Your task to perform on an android device: Go to network settings Image 0: 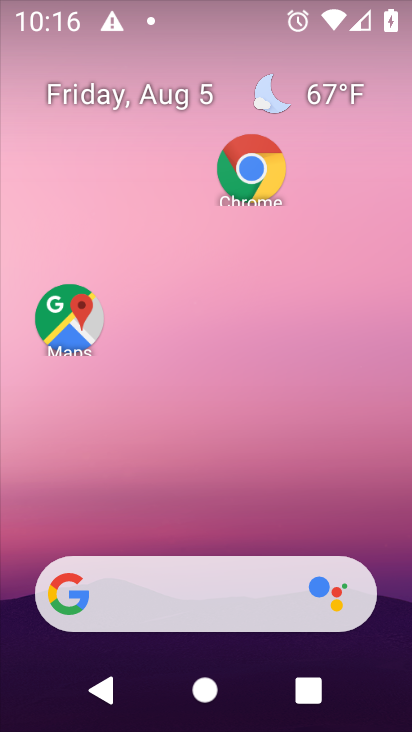
Step 0: drag from (205, 519) to (180, 111)
Your task to perform on an android device: Go to network settings Image 1: 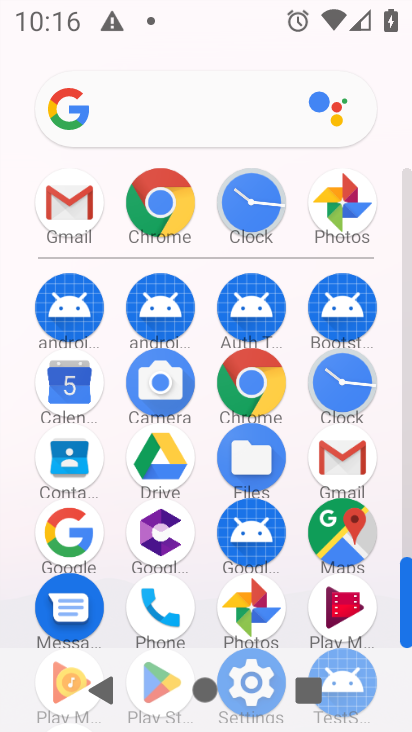
Step 1: drag from (201, 439) to (195, 265)
Your task to perform on an android device: Go to network settings Image 2: 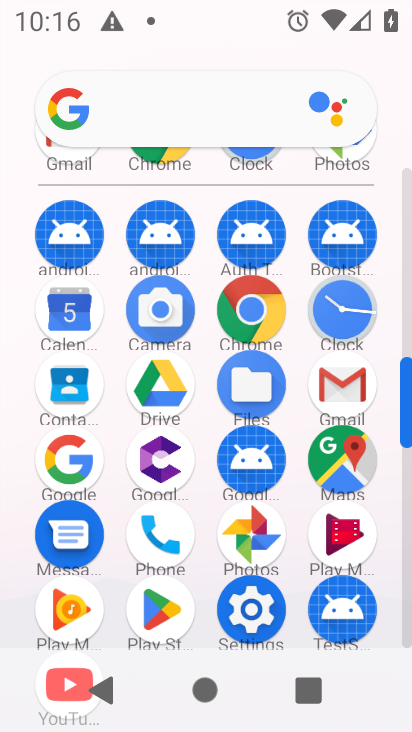
Step 2: click (267, 610)
Your task to perform on an android device: Go to network settings Image 3: 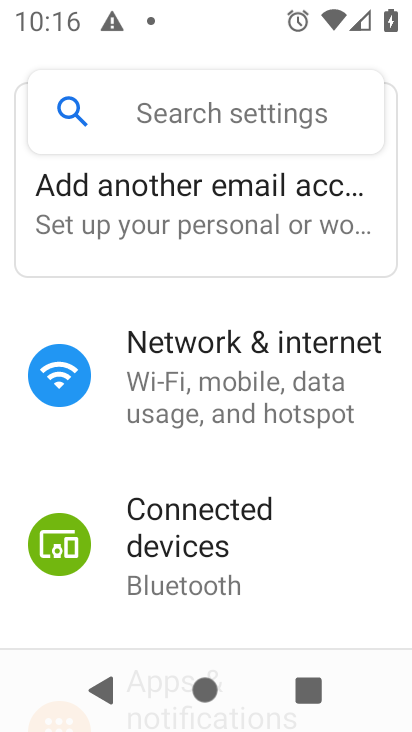
Step 3: click (226, 359)
Your task to perform on an android device: Go to network settings Image 4: 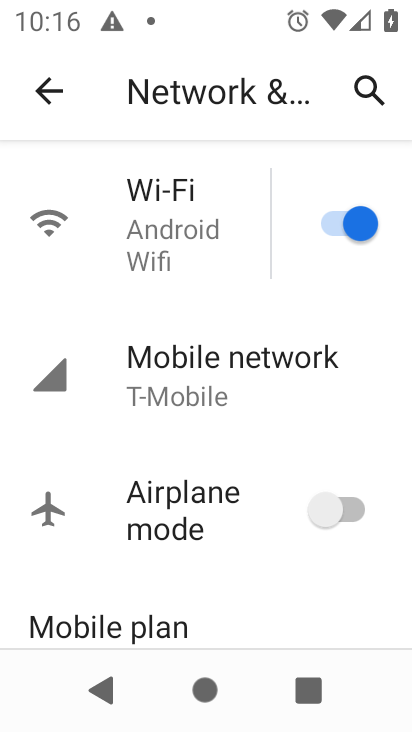
Step 4: task complete